Your task to perform on an android device: Go to sound settings Image 0: 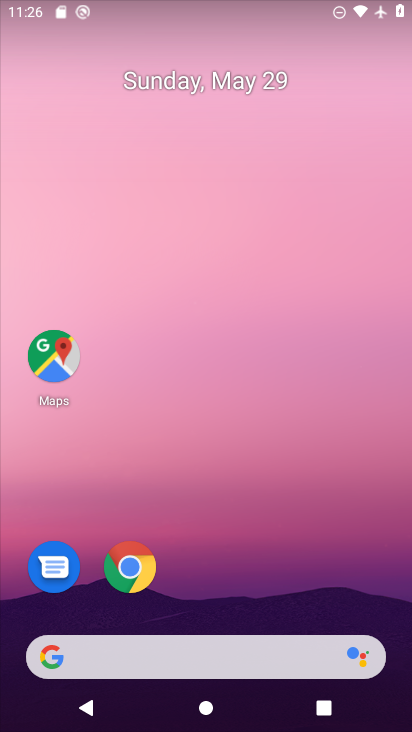
Step 0: drag from (396, 622) to (334, 78)
Your task to perform on an android device: Go to sound settings Image 1: 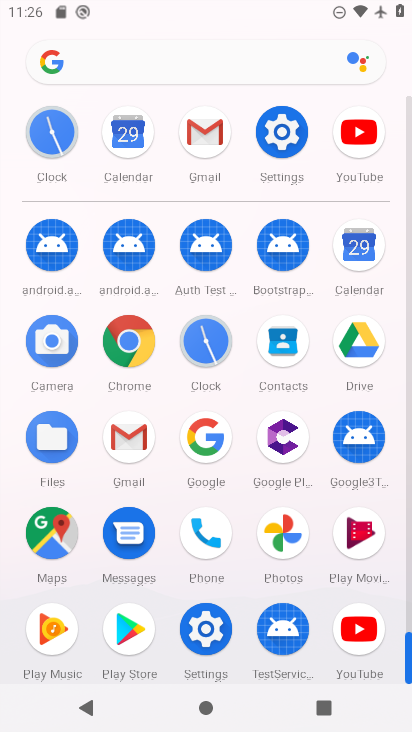
Step 1: click (205, 627)
Your task to perform on an android device: Go to sound settings Image 2: 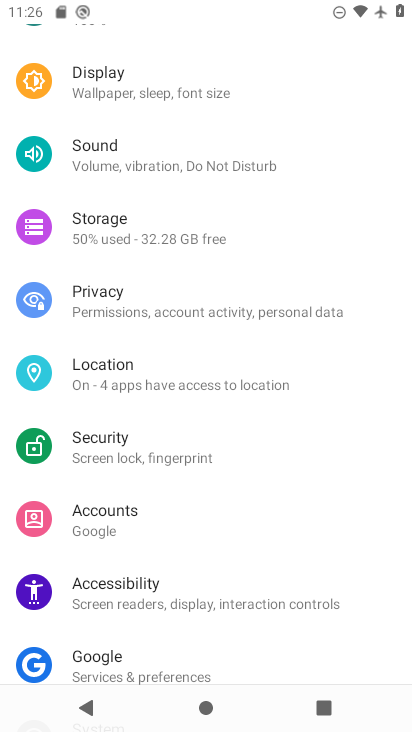
Step 2: click (144, 155)
Your task to perform on an android device: Go to sound settings Image 3: 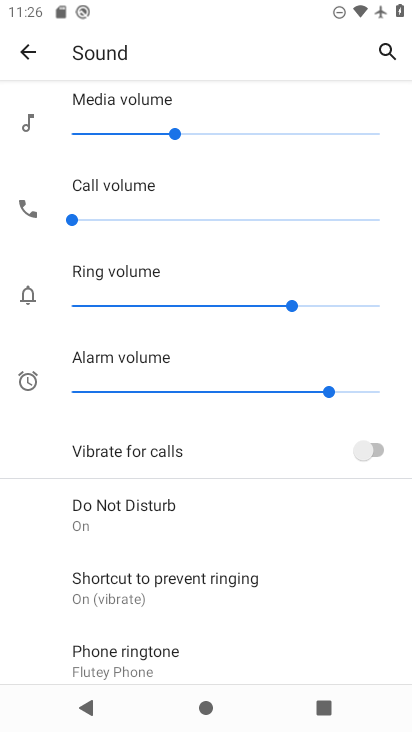
Step 3: drag from (302, 551) to (318, 208)
Your task to perform on an android device: Go to sound settings Image 4: 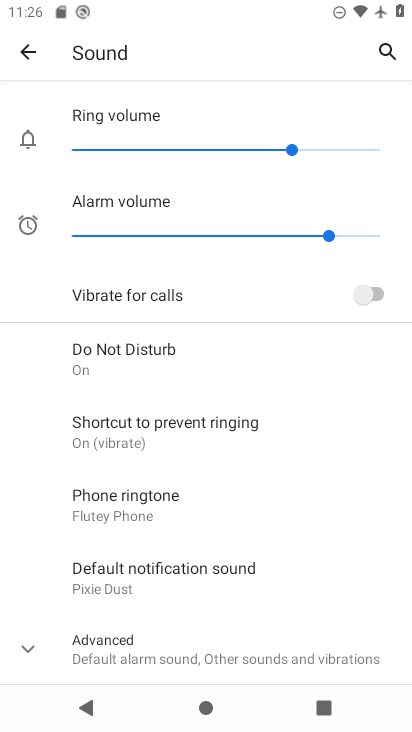
Step 4: click (21, 645)
Your task to perform on an android device: Go to sound settings Image 5: 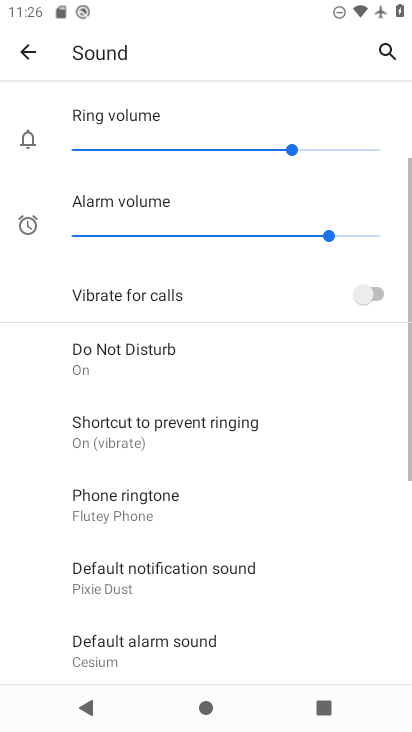
Step 5: task complete